Your task to perform on an android device: turn off airplane mode Image 0: 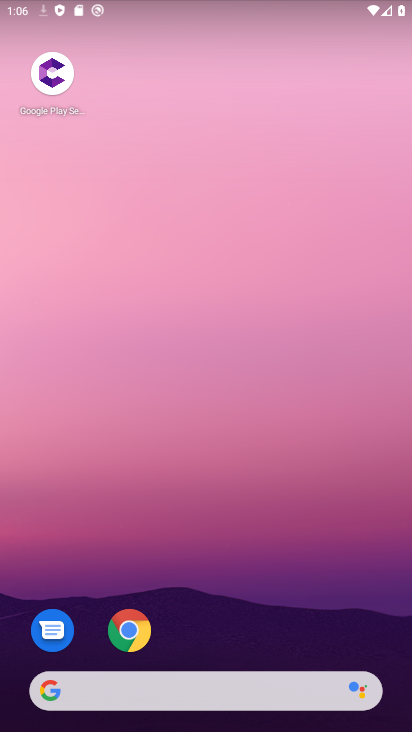
Step 0: drag from (198, 652) to (205, 216)
Your task to perform on an android device: turn off airplane mode Image 1: 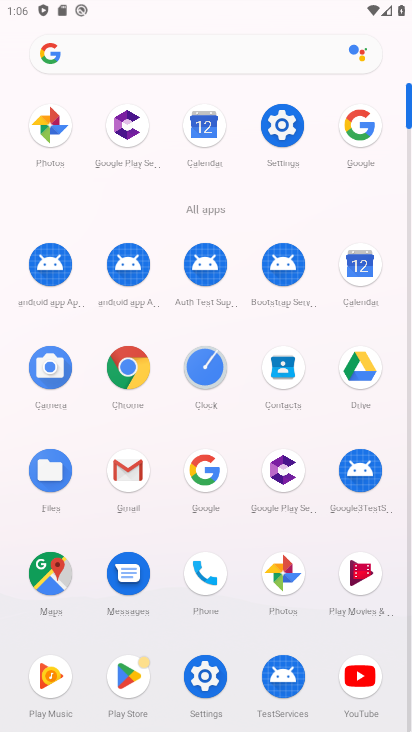
Step 1: click (265, 152)
Your task to perform on an android device: turn off airplane mode Image 2: 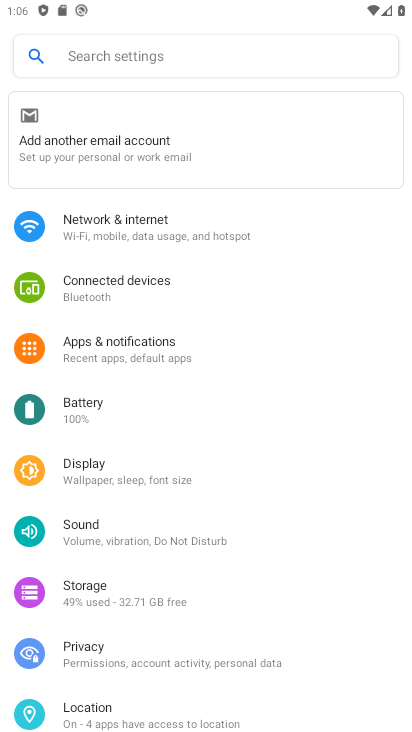
Step 2: click (192, 228)
Your task to perform on an android device: turn off airplane mode Image 3: 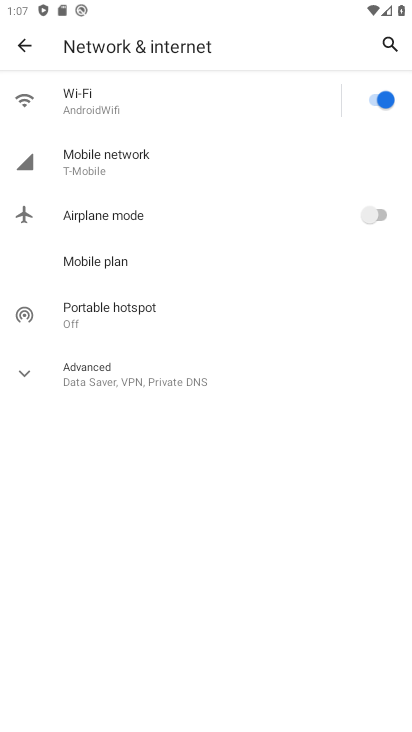
Step 3: task complete